Your task to perform on an android device: change timer sound Image 0: 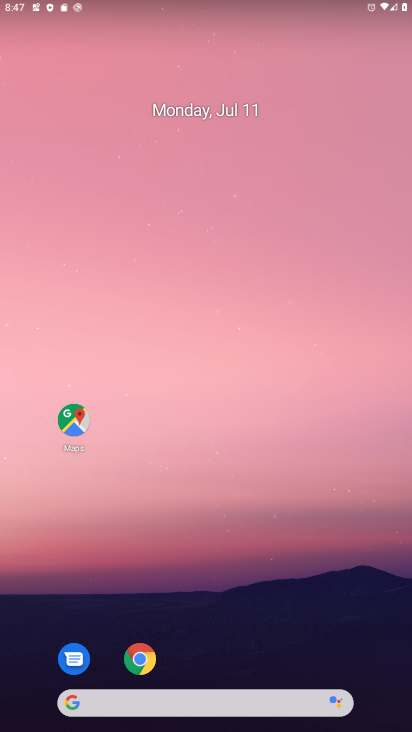
Step 0: drag from (242, 568) to (201, 29)
Your task to perform on an android device: change timer sound Image 1: 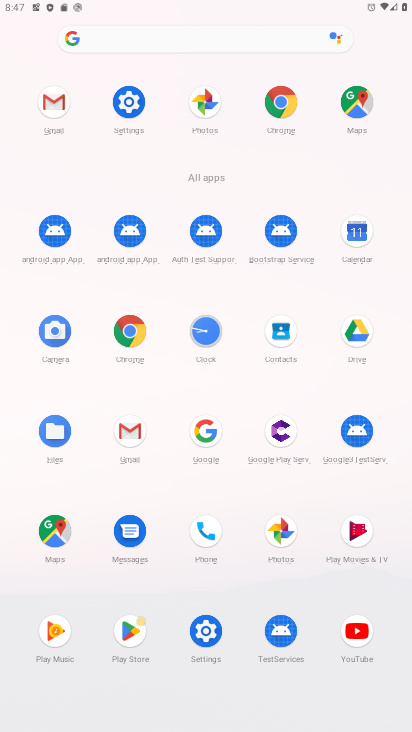
Step 1: click (207, 330)
Your task to perform on an android device: change timer sound Image 2: 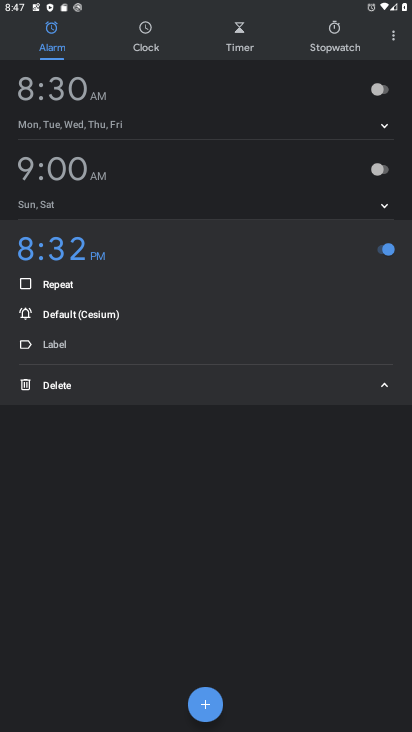
Step 2: click (394, 39)
Your task to perform on an android device: change timer sound Image 3: 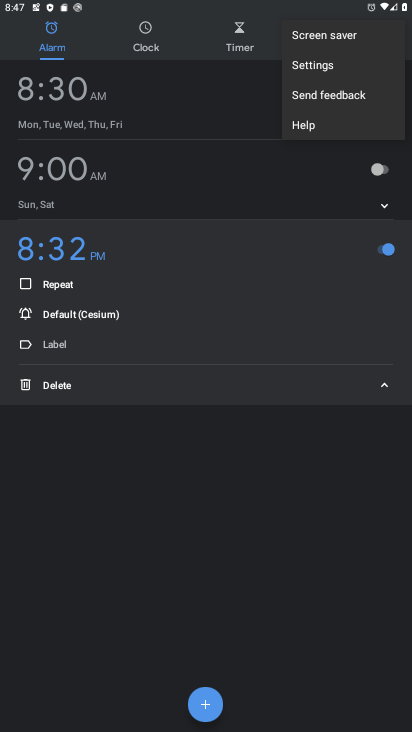
Step 3: click (316, 64)
Your task to perform on an android device: change timer sound Image 4: 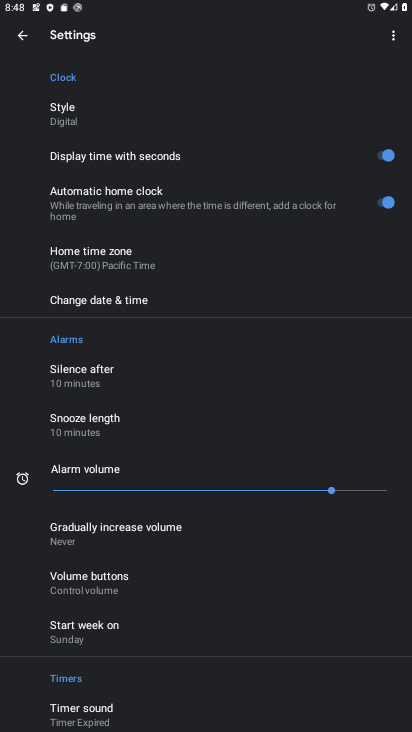
Step 4: click (82, 715)
Your task to perform on an android device: change timer sound Image 5: 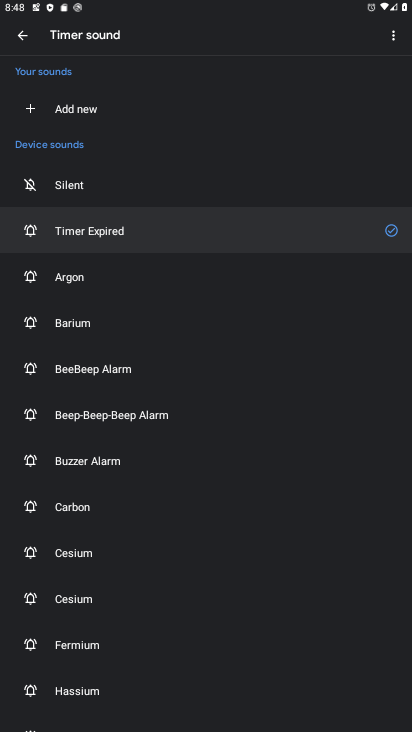
Step 5: click (67, 274)
Your task to perform on an android device: change timer sound Image 6: 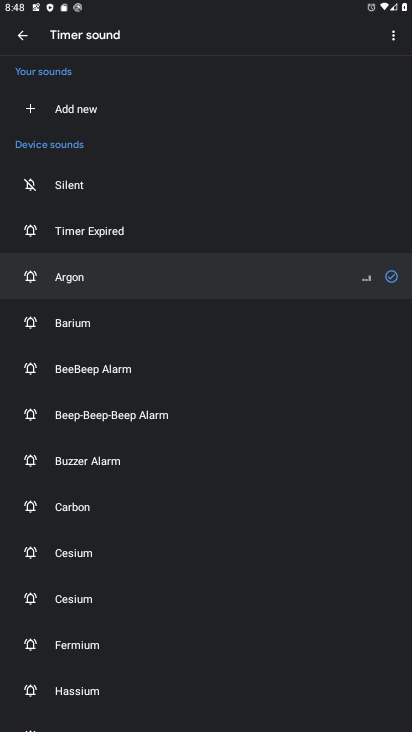
Step 6: task complete